Your task to perform on an android device: turn off wifi Image 0: 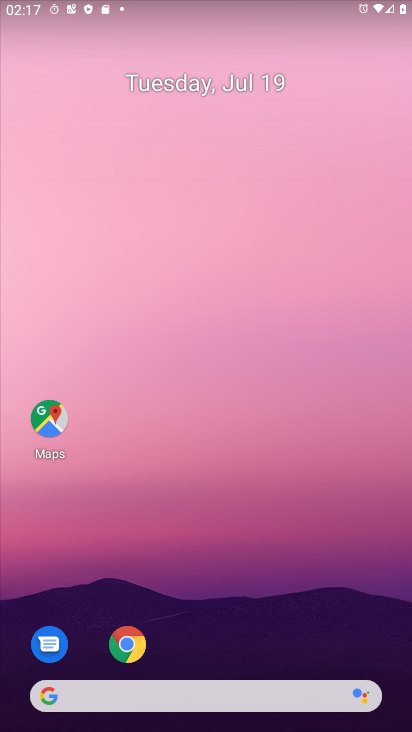
Step 0: drag from (207, 700) to (210, 156)
Your task to perform on an android device: turn off wifi Image 1: 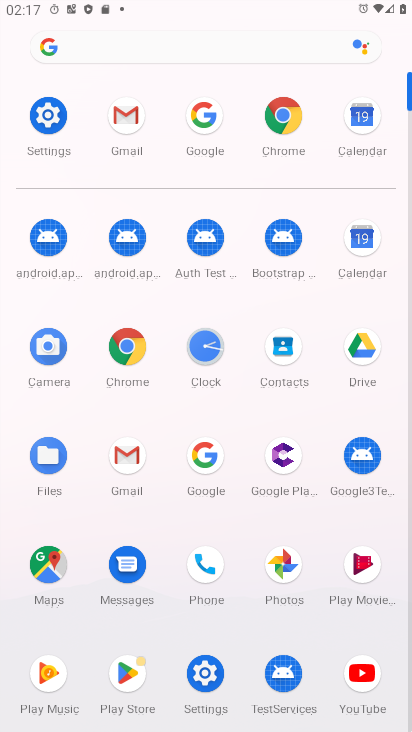
Step 1: click (46, 111)
Your task to perform on an android device: turn off wifi Image 2: 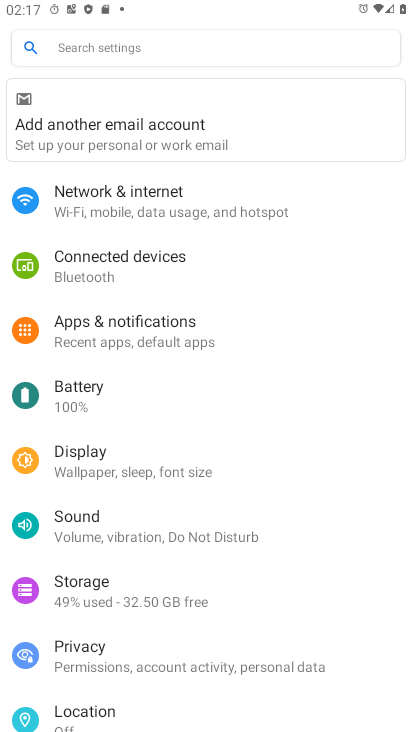
Step 2: click (92, 193)
Your task to perform on an android device: turn off wifi Image 3: 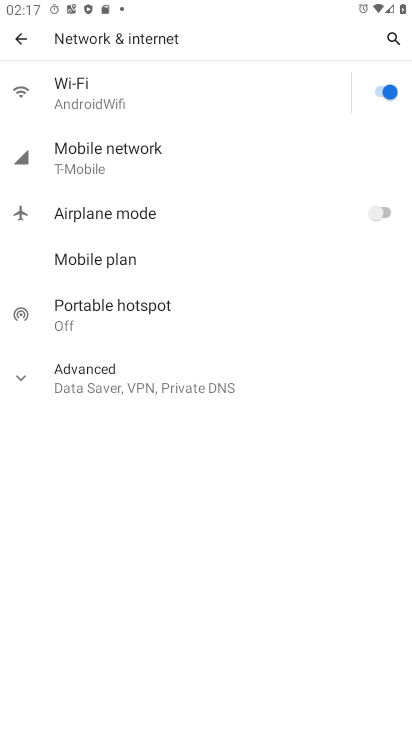
Step 3: click (378, 86)
Your task to perform on an android device: turn off wifi Image 4: 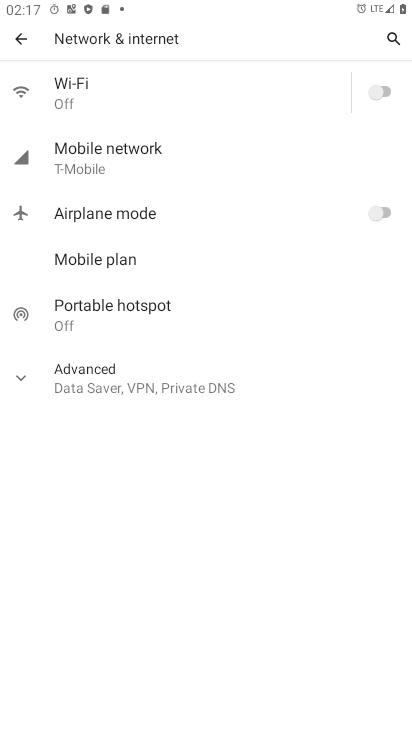
Step 4: task complete